Your task to perform on an android device: open app "Messenger Lite" (install if not already installed) Image 0: 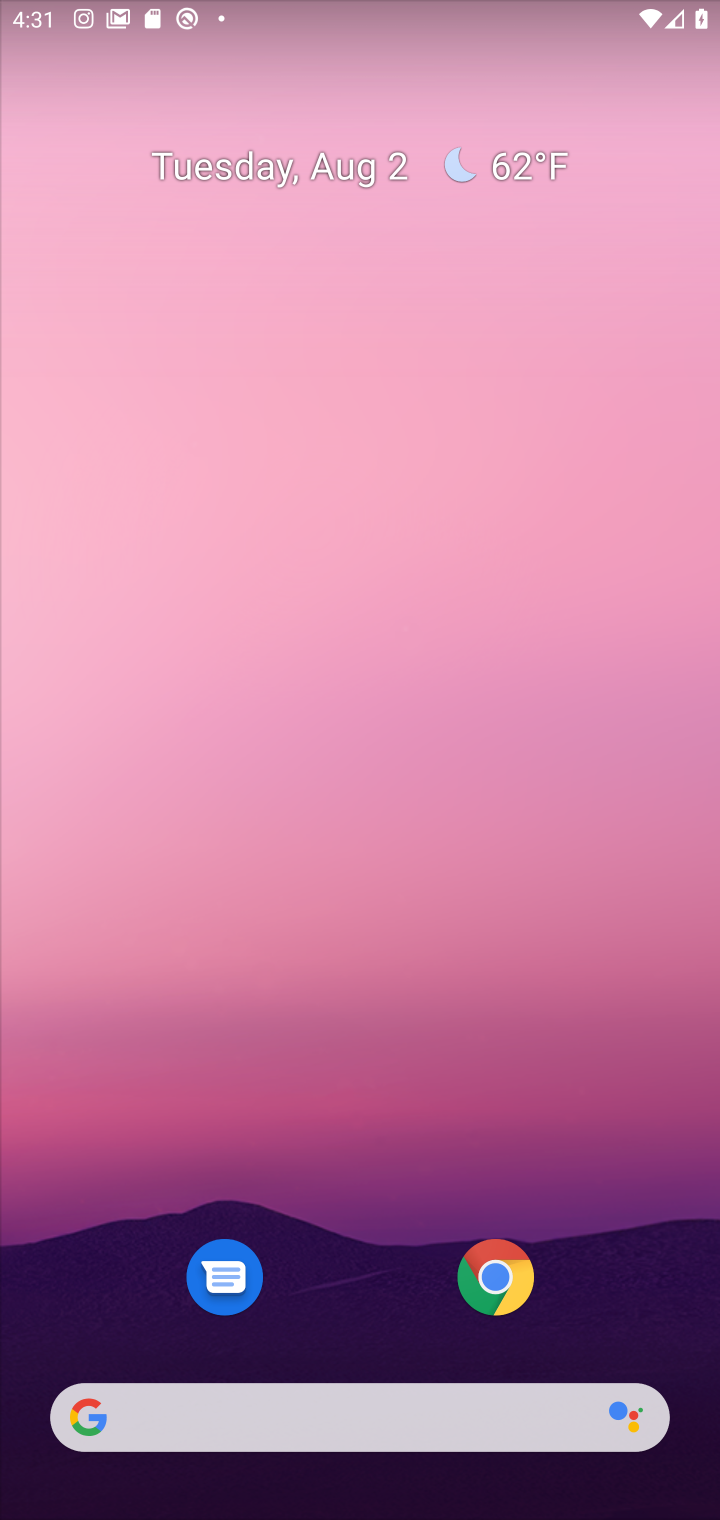
Step 0: drag from (544, 1115) to (589, 221)
Your task to perform on an android device: open app "Messenger Lite" (install if not already installed) Image 1: 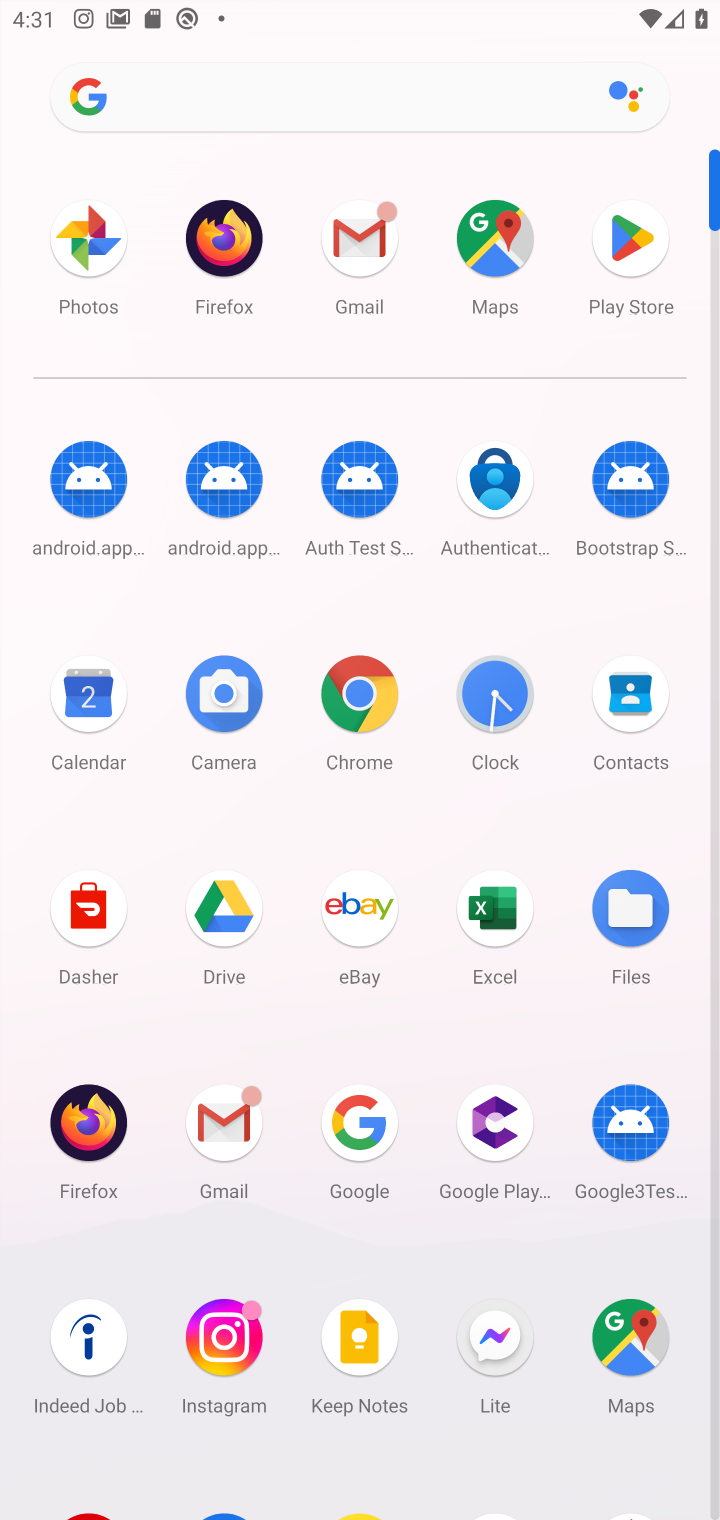
Step 1: drag from (410, 1234) to (440, 587)
Your task to perform on an android device: open app "Messenger Lite" (install if not already installed) Image 2: 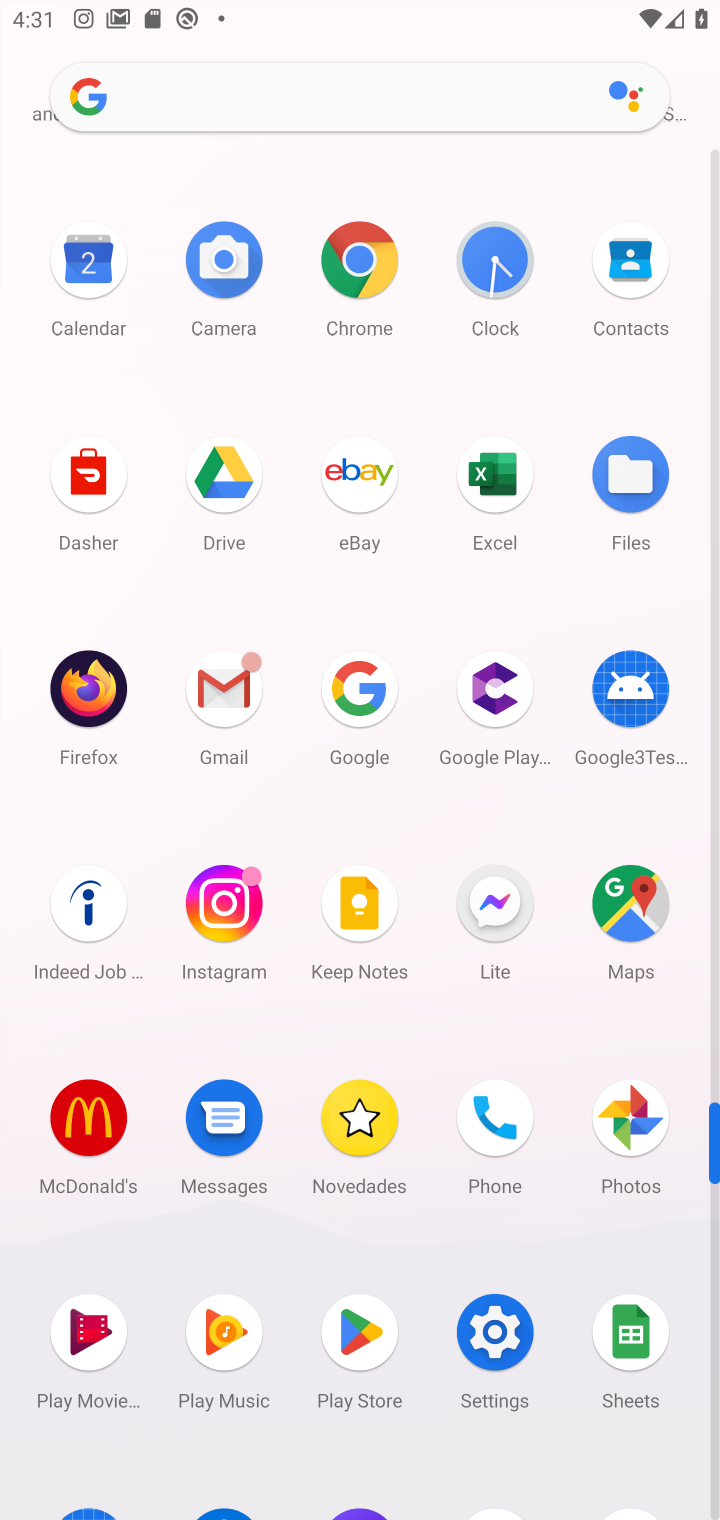
Step 2: click (357, 1337)
Your task to perform on an android device: open app "Messenger Lite" (install if not already installed) Image 3: 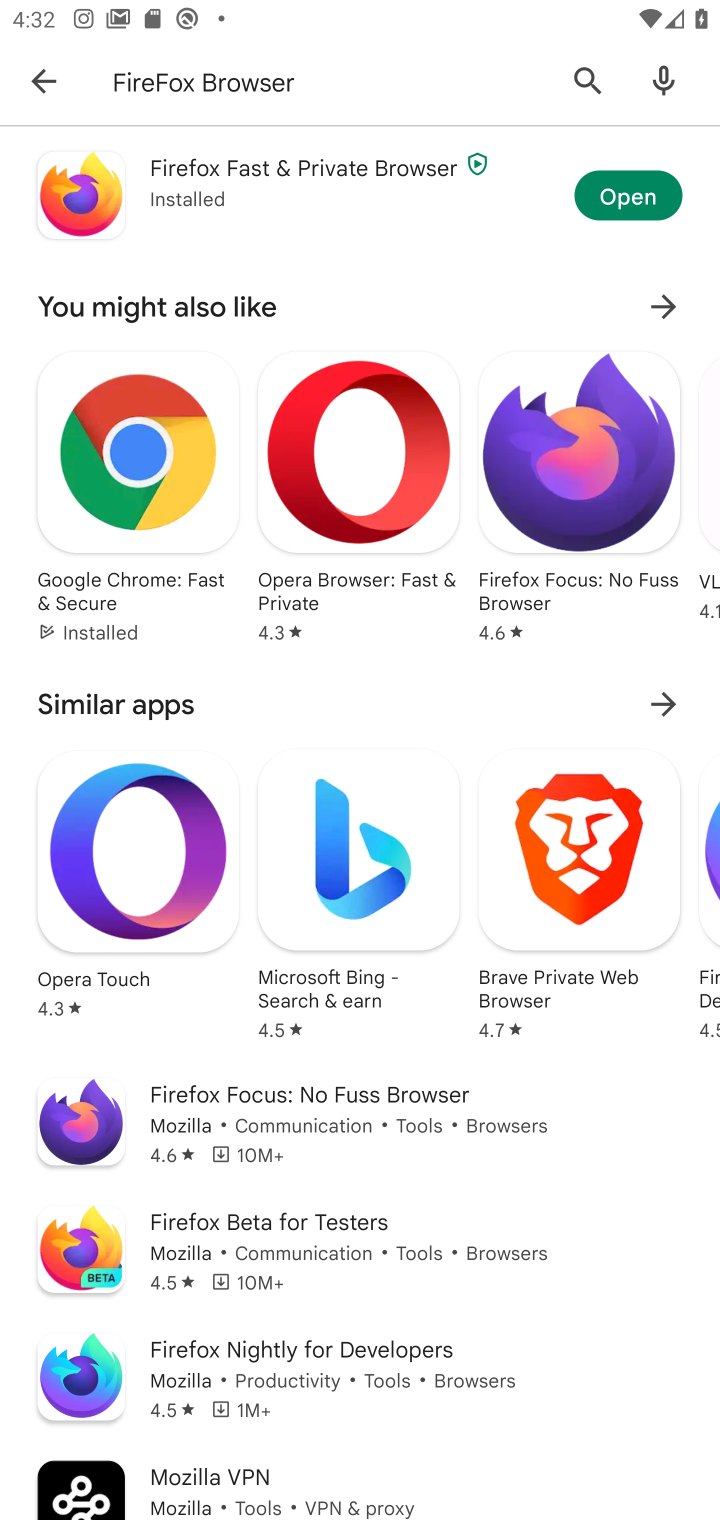
Step 3: click (476, 89)
Your task to perform on an android device: open app "Messenger Lite" (install if not already installed) Image 4: 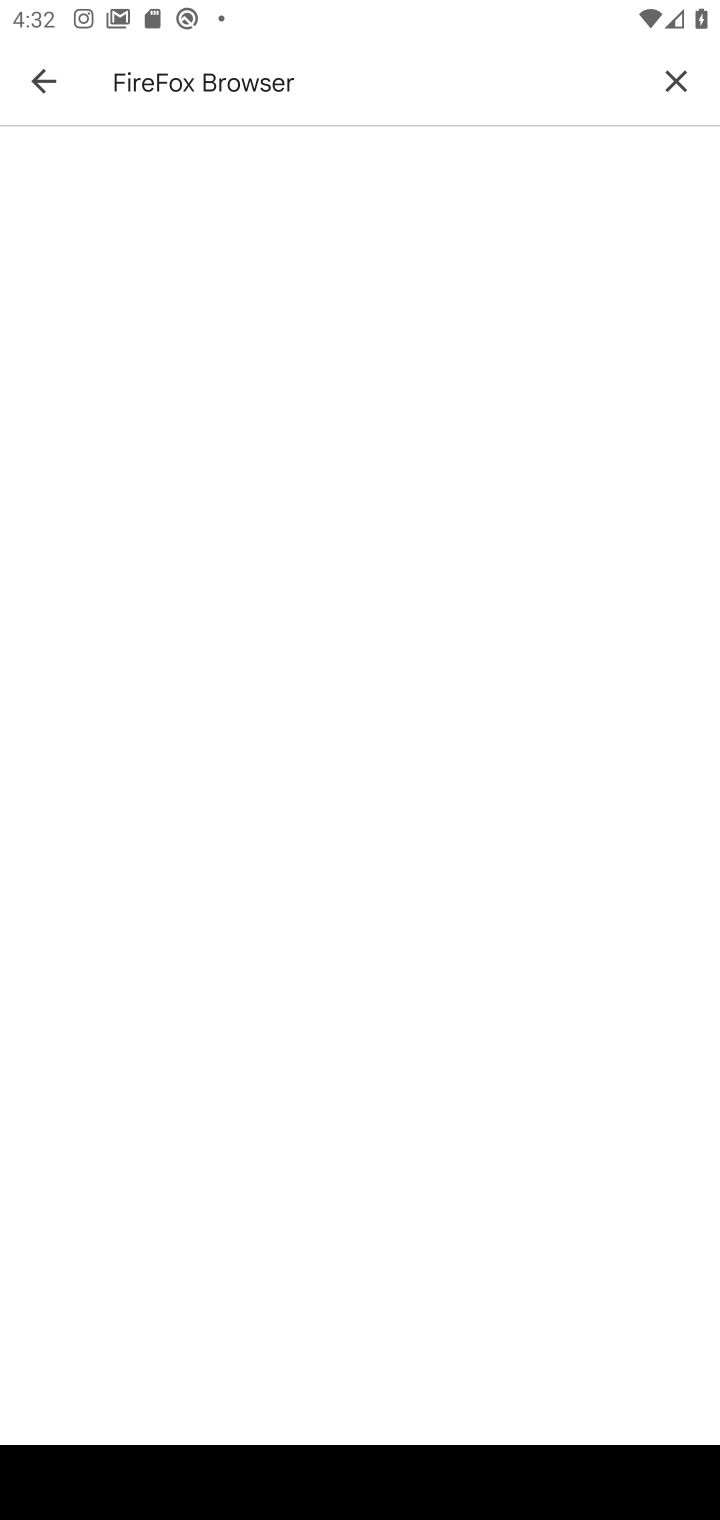
Step 4: click (671, 83)
Your task to perform on an android device: open app "Messenger Lite" (install if not already installed) Image 5: 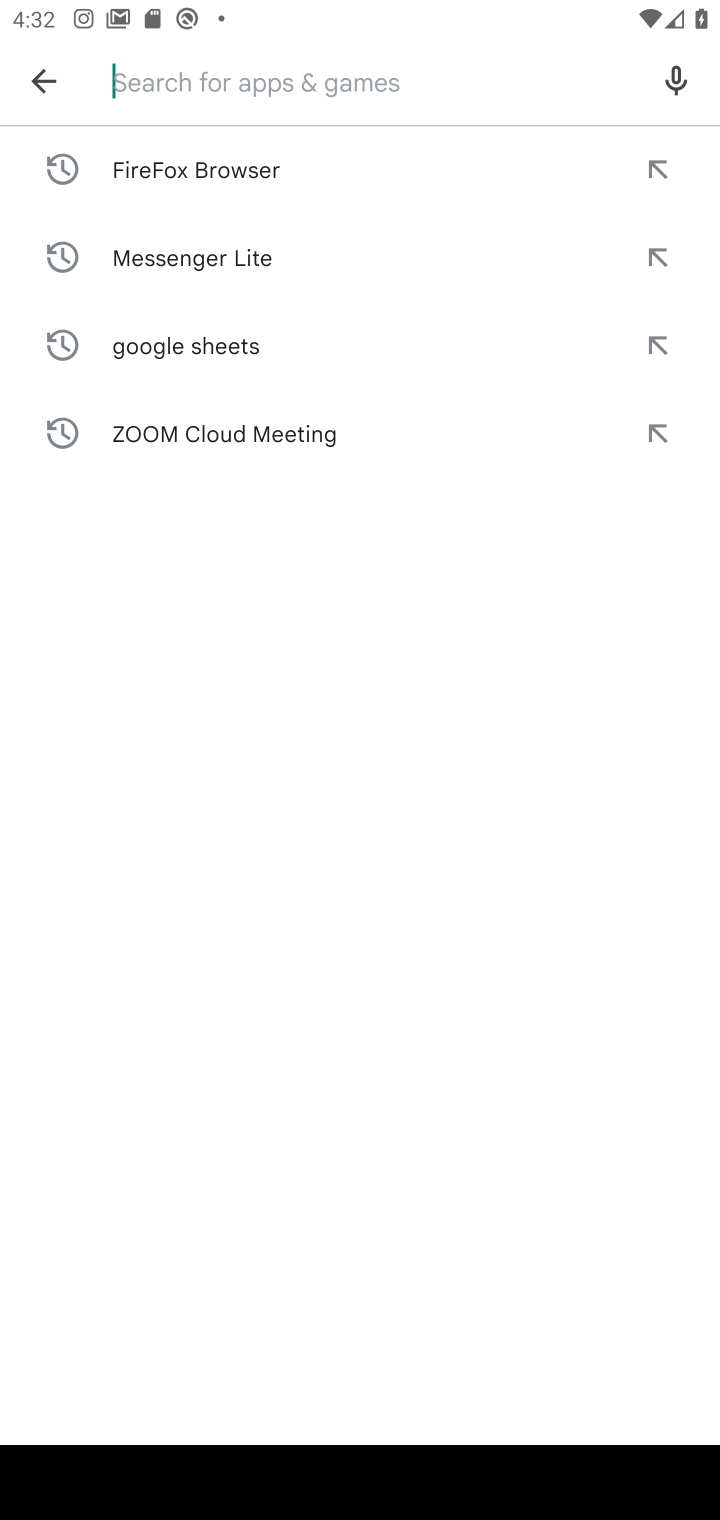
Step 5: type "Messenger Lite"
Your task to perform on an android device: open app "Messenger Lite" (install if not already installed) Image 6: 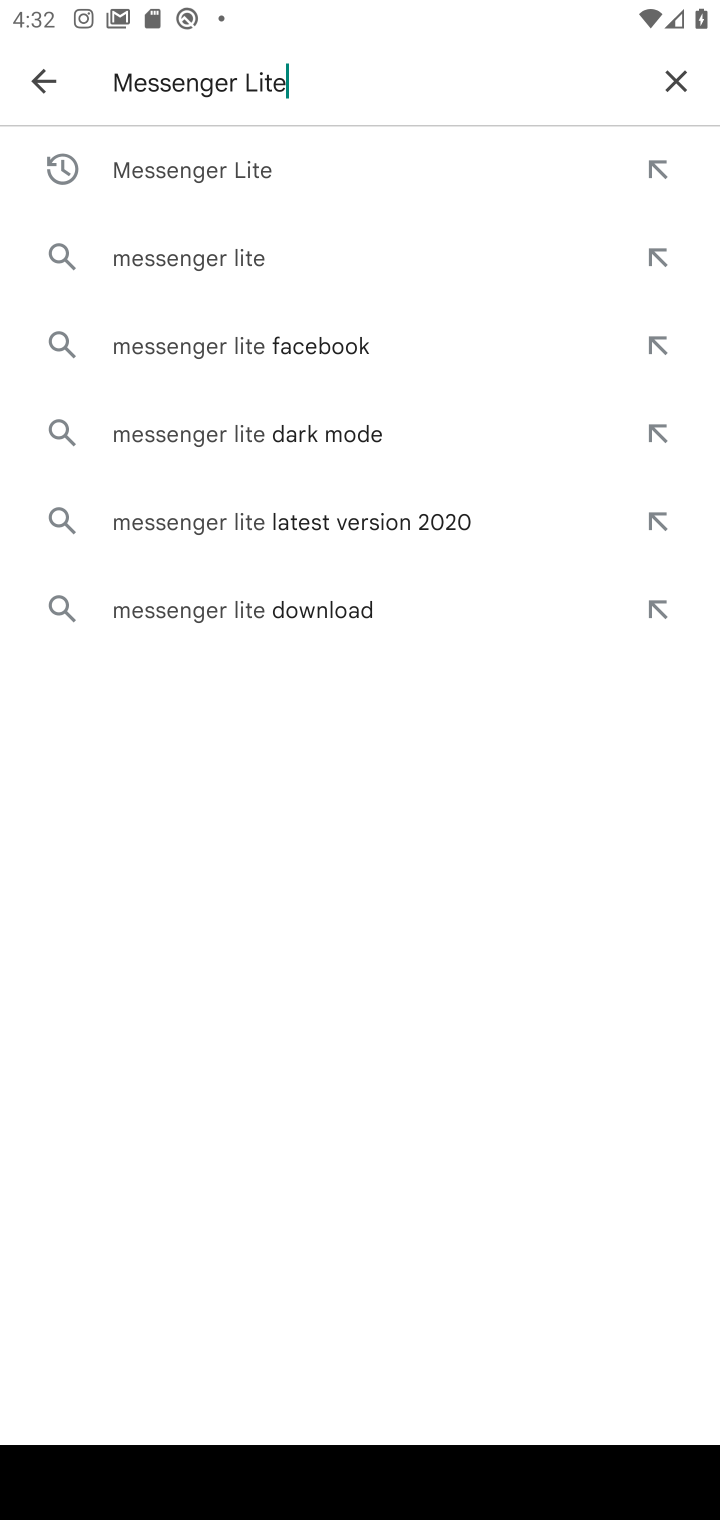
Step 6: press enter
Your task to perform on an android device: open app "Messenger Lite" (install if not already installed) Image 7: 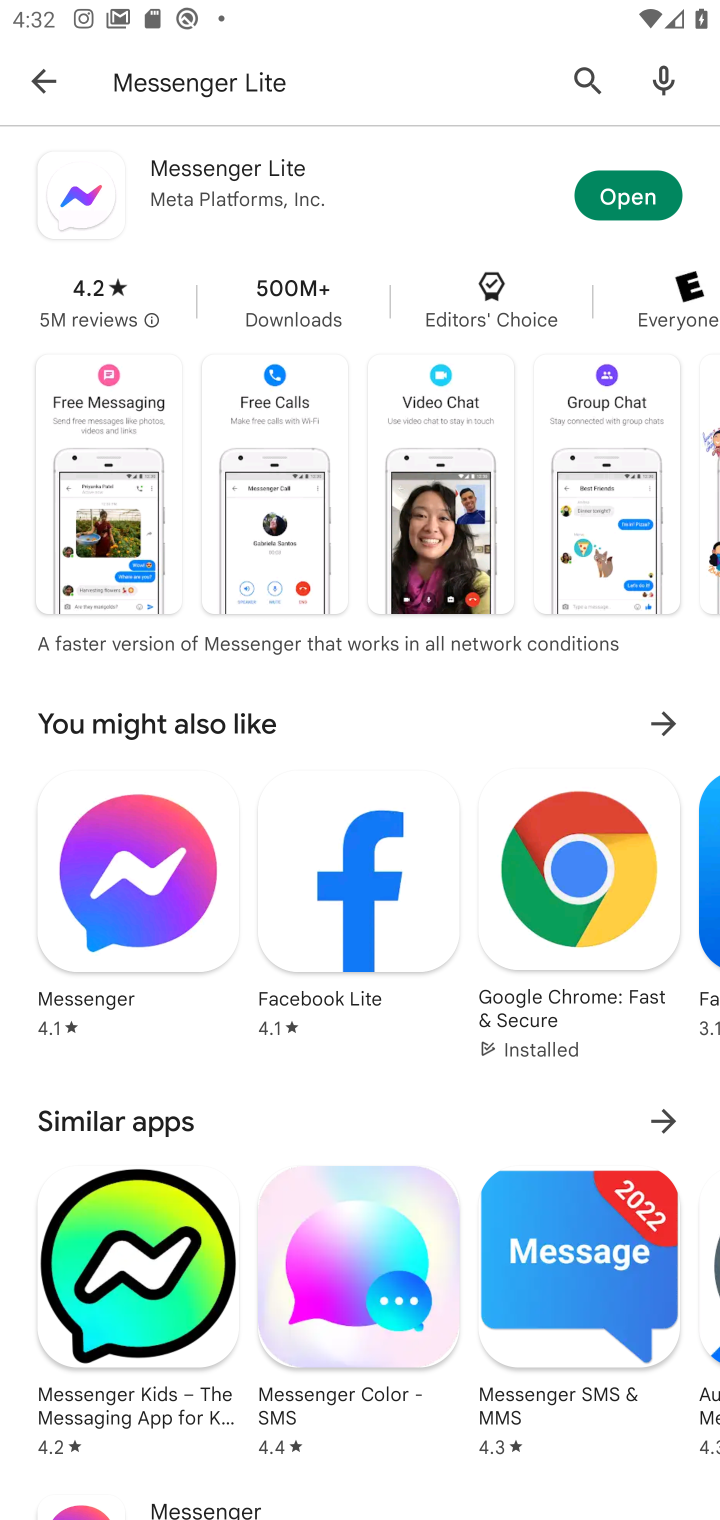
Step 7: click (623, 187)
Your task to perform on an android device: open app "Messenger Lite" (install if not already installed) Image 8: 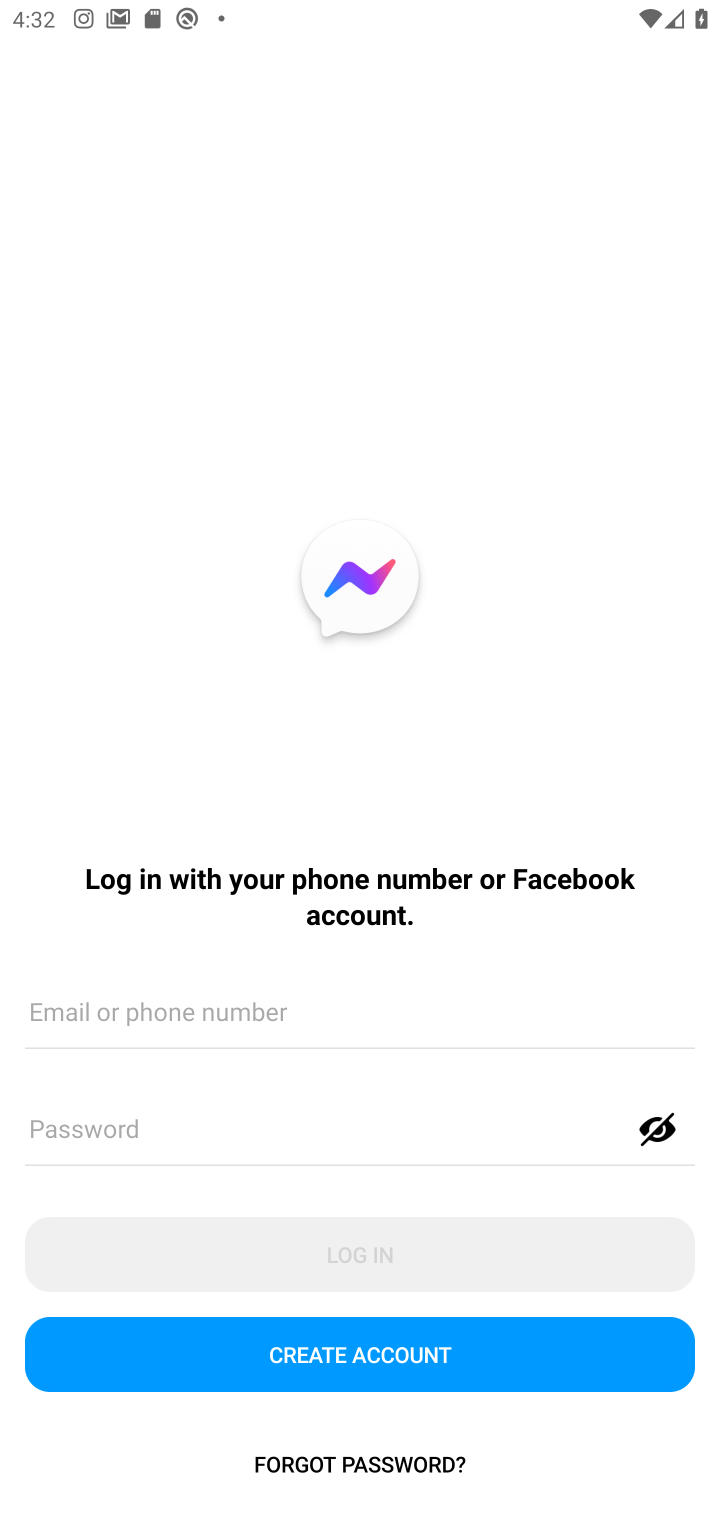
Step 8: task complete